Your task to perform on an android device: Do I have any events today? Image 0: 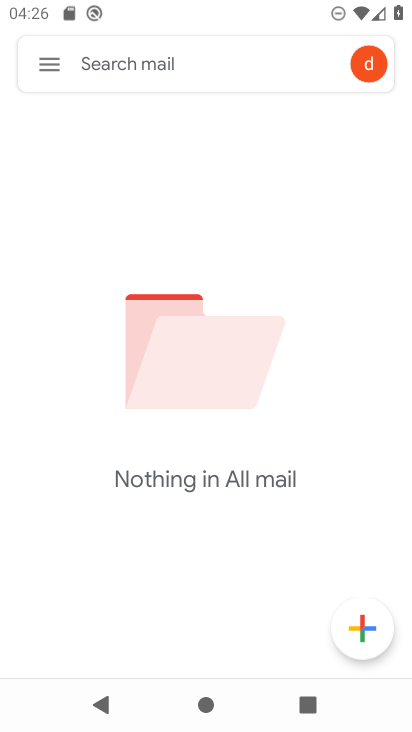
Step 0: press home button
Your task to perform on an android device: Do I have any events today? Image 1: 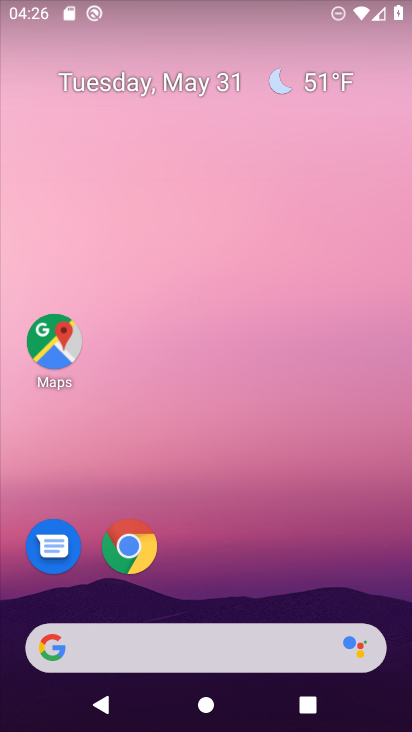
Step 1: drag from (220, 600) to (218, 252)
Your task to perform on an android device: Do I have any events today? Image 2: 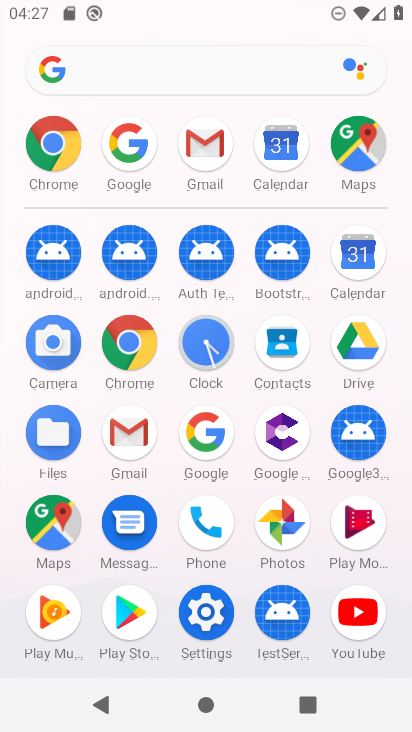
Step 2: click (361, 284)
Your task to perform on an android device: Do I have any events today? Image 3: 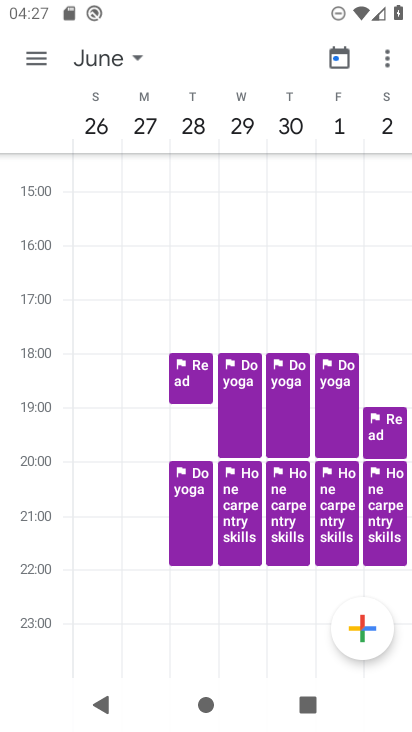
Step 3: click (110, 54)
Your task to perform on an android device: Do I have any events today? Image 4: 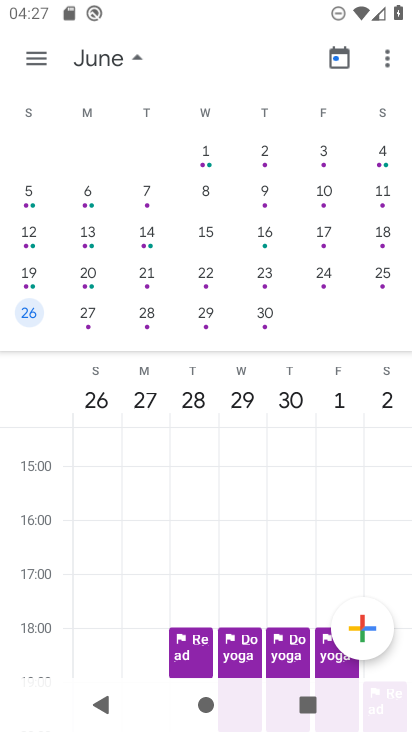
Step 4: drag from (38, 255) to (410, 269)
Your task to perform on an android device: Do I have any events today? Image 5: 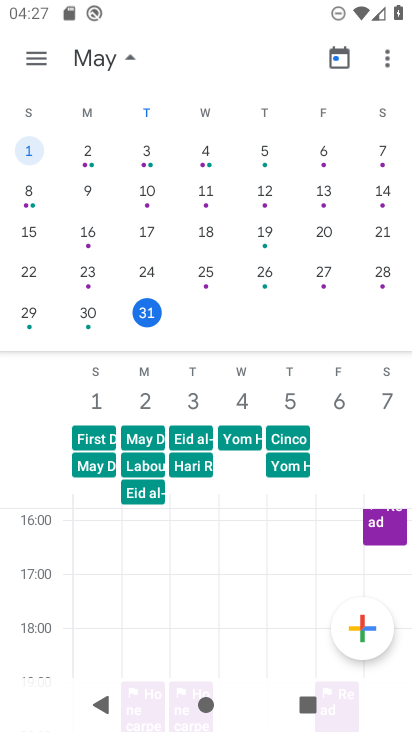
Step 5: click (157, 323)
Your task to perform on an android device: Do I have any events today? Image 6: 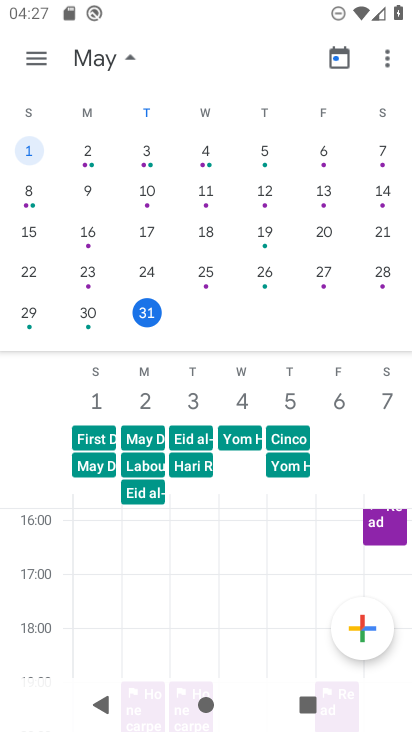
Step 6: click (157, 323)
Your task to perform on an android device: Do I have any events today? Image 7: 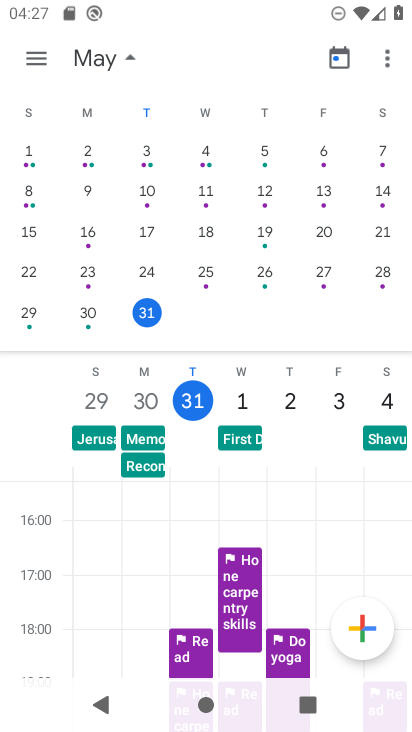
Step 7: click (30, 60)
Your task to perform on an android device: Do I have any events today? Image 8: 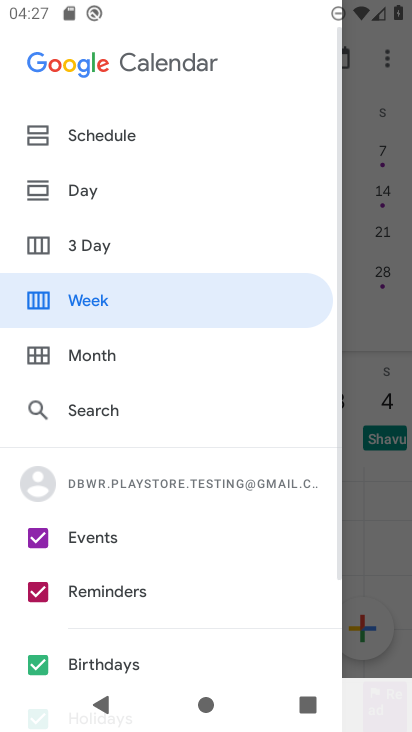
Step 8: click (111, 132)
Your task to perform on an android device: Do I have any events today? Image 9: 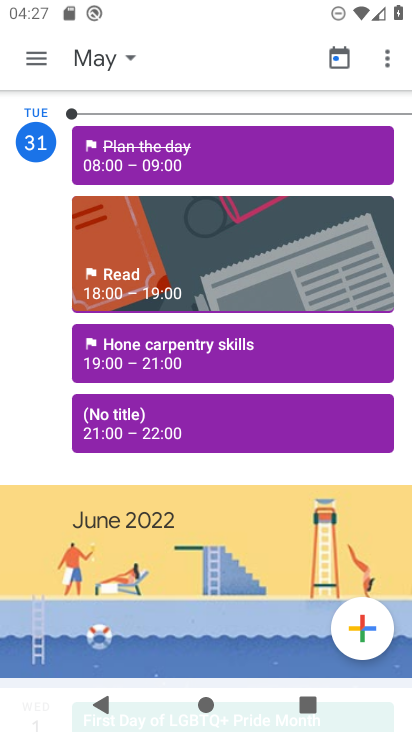
Step 9: task complete